Your task to perform on an android device: stop showing notifications on the lock screen Image 0: 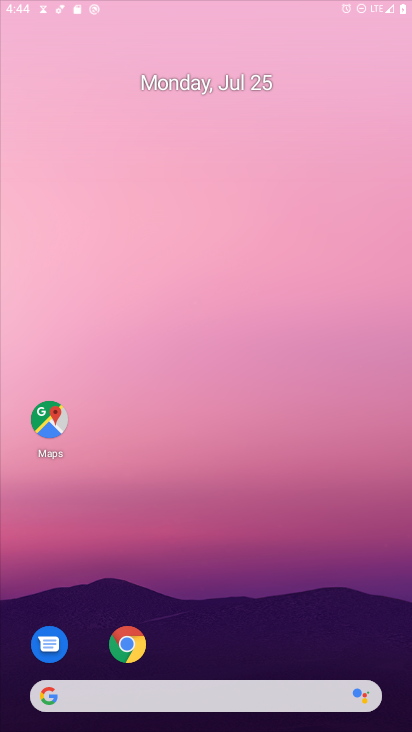
Step 0: press home button
Your task to perform on an android device: stop showing notifications on the lock screen Image 1: 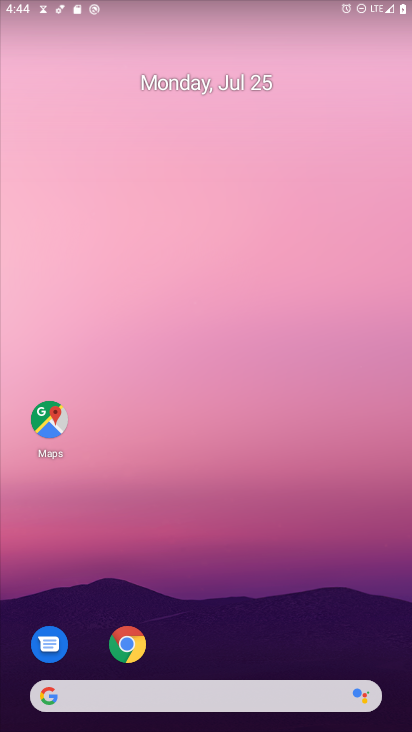
Step 1: drag from (309, 620) to (287, 91)
Your task to perform on an android device: stop showing notifications on the lock screen Image 2: 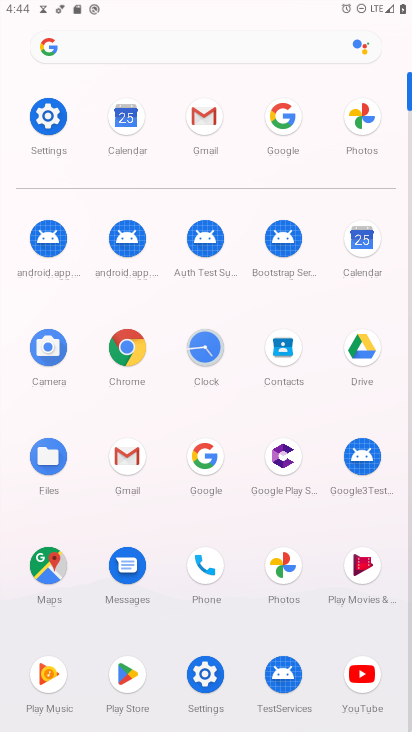
Step 2: click (50, 117)
Your task to perform on an android device: stop showing notifications on the lock screen Image 3: 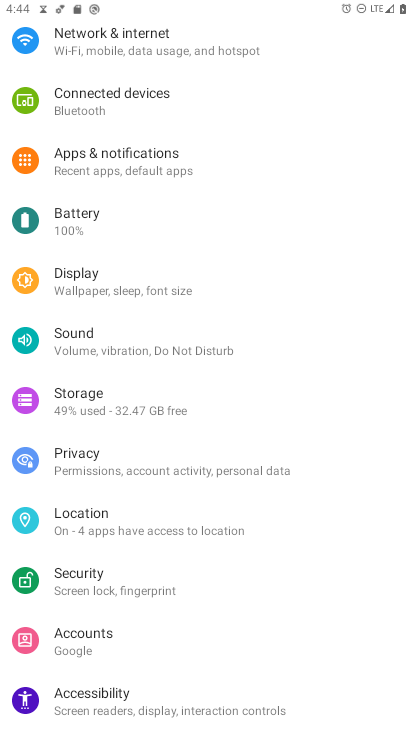
Step 3: click (135, 165)
Your task to perform on an android device: stop showing notifications on the lock screen Image 4: 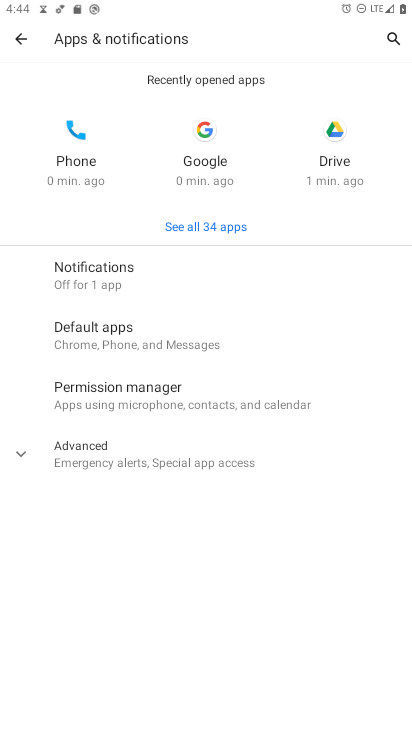
Step 4: click (96, 274)
Your task to perform on an android device: stop showing notifications on the lock screen Image 5: 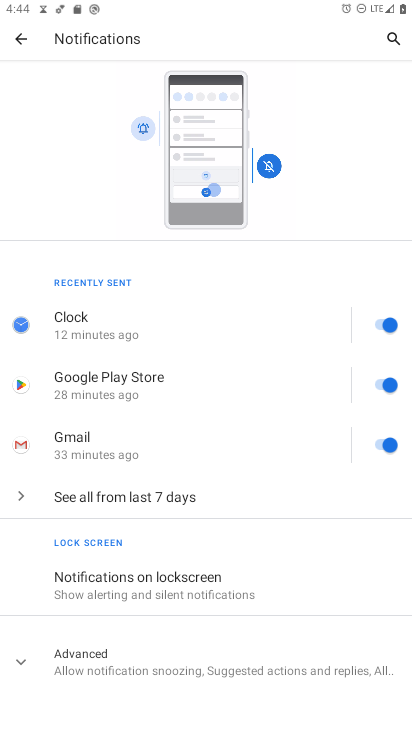
Step 5: click (145, 581)
Your task to perform on an android device: stop showing notifications on the lock screen Image 6: 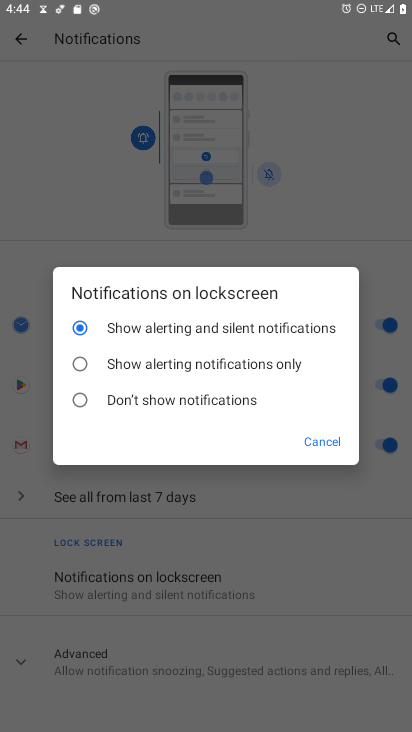
Step 6: click (75, 404)
Your task to perform on an android device: stop showing notifications on the lock screen Image 7: 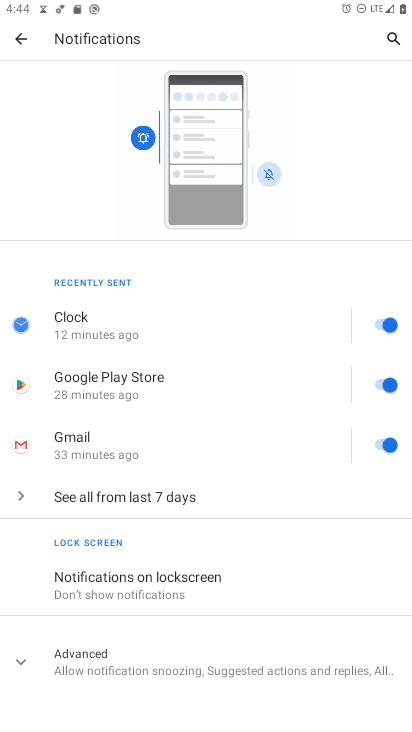
Step 7: task complete